Your task to perform on an android device: Go to Android settings Image 0: 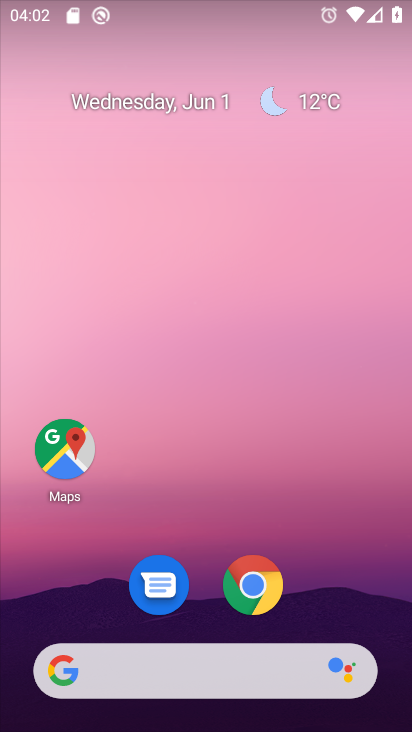
Step 0: drag from (205, 538) to (258, 50)
Your task to perform on an android device: Go to Android settings Image 1: 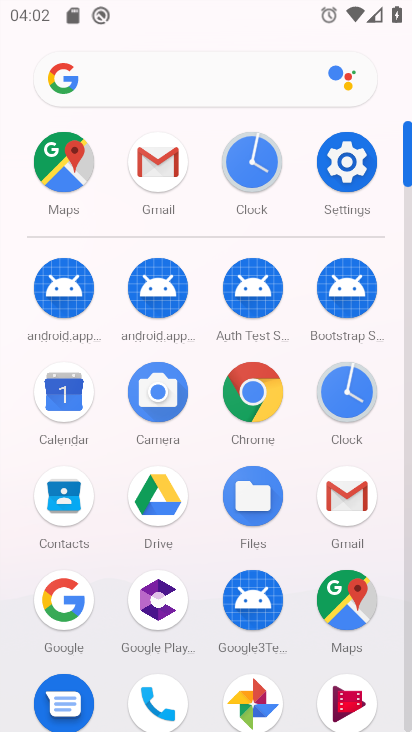
Step 1: click (343, 154)
Your task to perform on an android device: Go to Android settings Image 2: 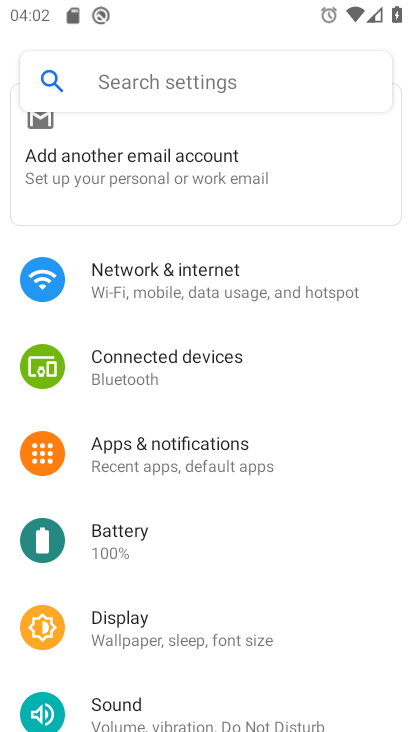
Step 2: drag from (246, 655) to (245, 3)
Your task to perform on an android device: Go to Android settings Image 3: 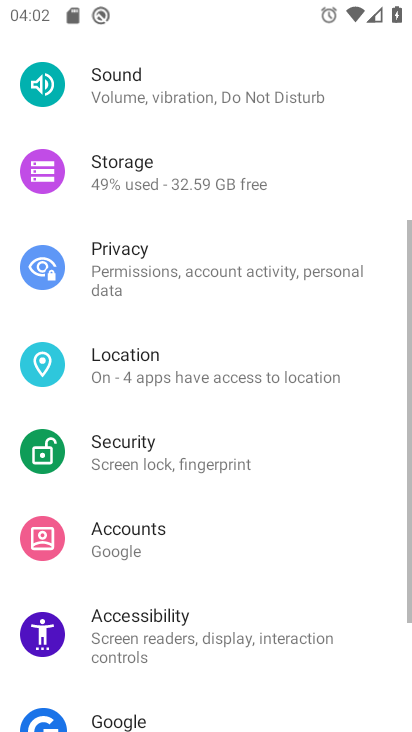
Step 3: drag from (241, 531) to (250, 67)
Your task to perform on an android device: Go to Android settings Image 4: 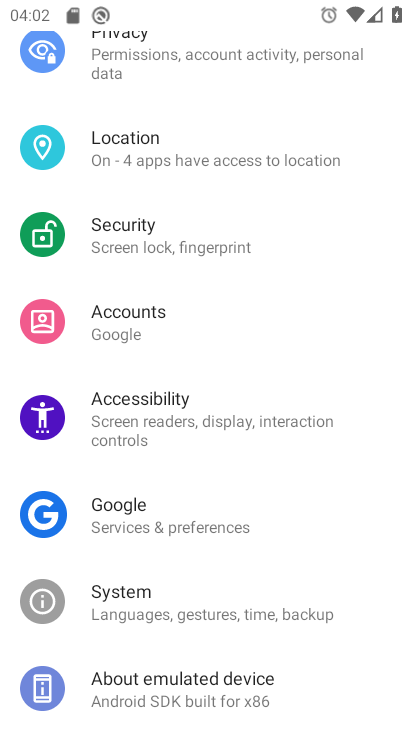
Step 4: click (222, 693)
Your task to perform on an android device: Go to Android settings Image 5: 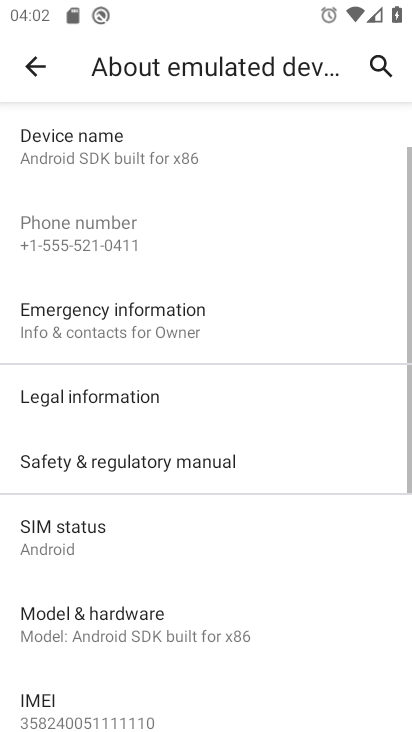
Step 5: task complete